Your task to perform on an android device: toggle location history Image 0: 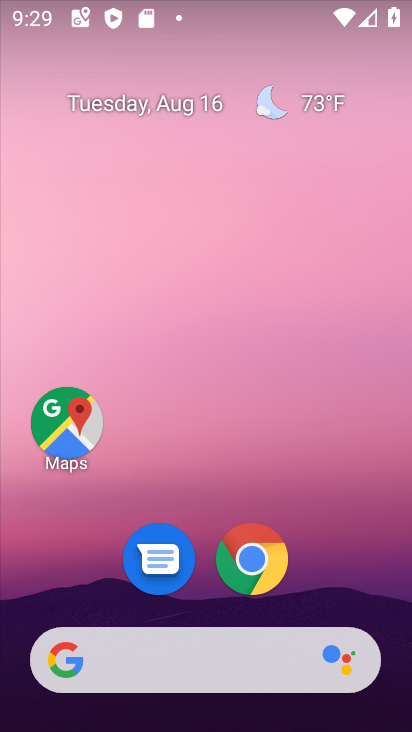
Step 0: drag from (348, 573) to (335, 9)
Your task to perform on an android device: toggle location history Image 1: 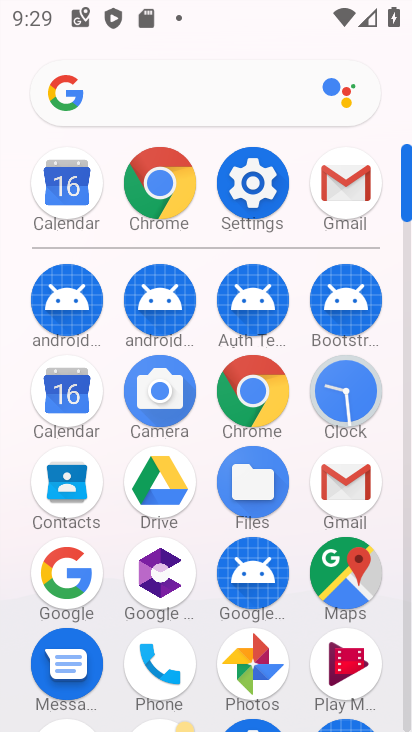
Step 1: click (340, 567)
Your task to perform on an android device: toggle location history Image 2: 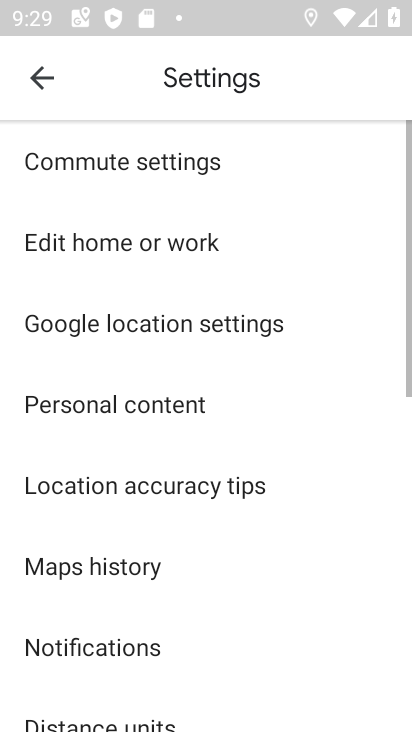
Step 2: click (39, 73)
Your task to perform on an android device: toggle location history Image 3: 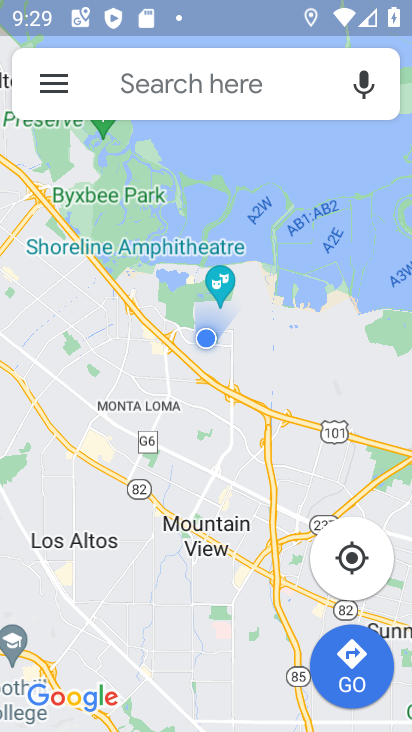
Step 3: click (59, 76)
Your task to perform on an android device: toggle location history Image 4: 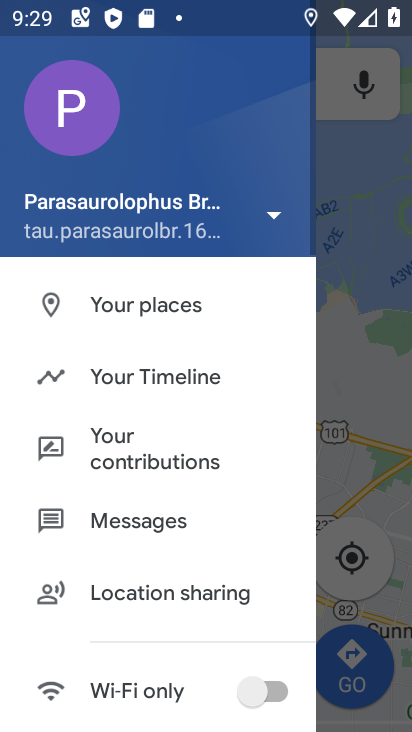
Step 4: click (172, 358)
Your task to perform on an android device: toggle location history Image 5: 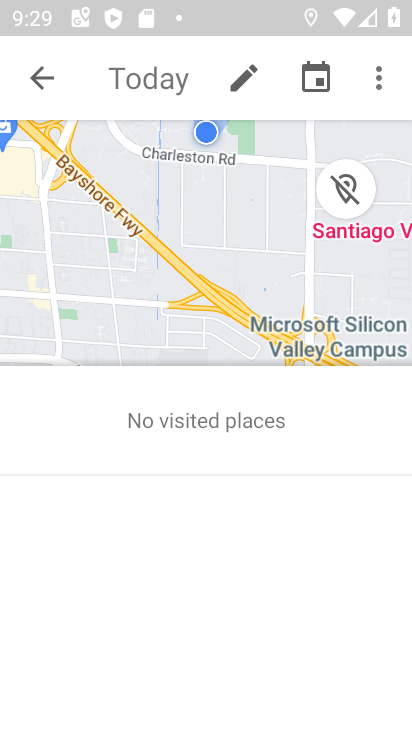
Step 5: click (368, 77)
Your task to perform on an android device: toggle location history Image 6: 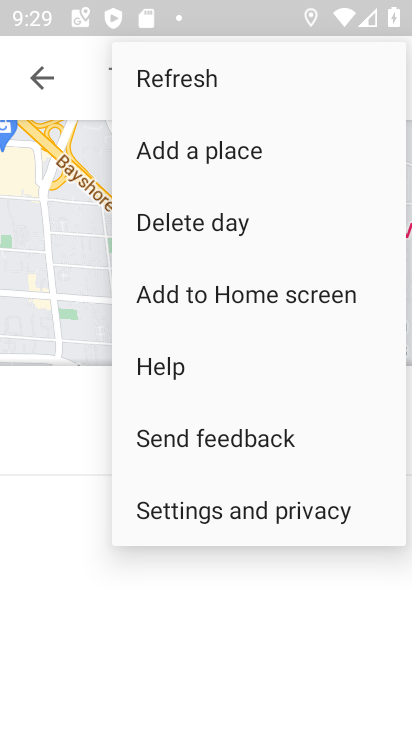
Step 6: click (240, 507)
Your task to perform on an android device: toggle location history Image 7: 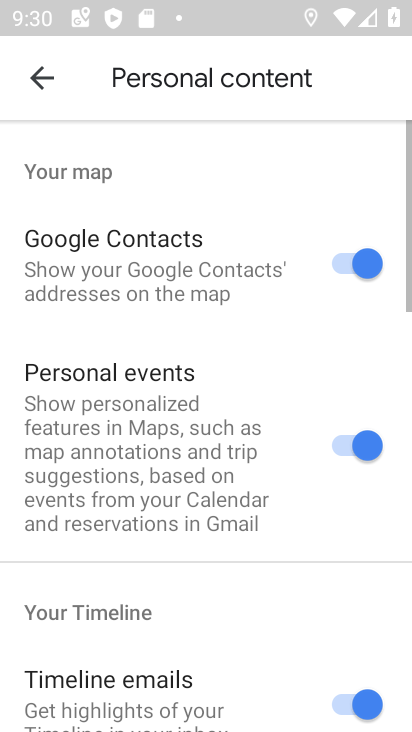
Step 7: drag from (274, 594) to (276, 76)
Your task to perform on an android device: toggle location history Image 8: 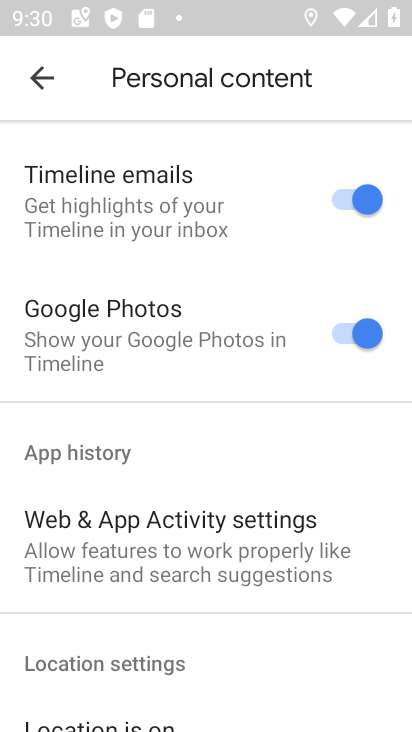
Step 8: drag from (183, 648) to (166, 199)
Your task to perform on an android device: toggle location history Image 9: 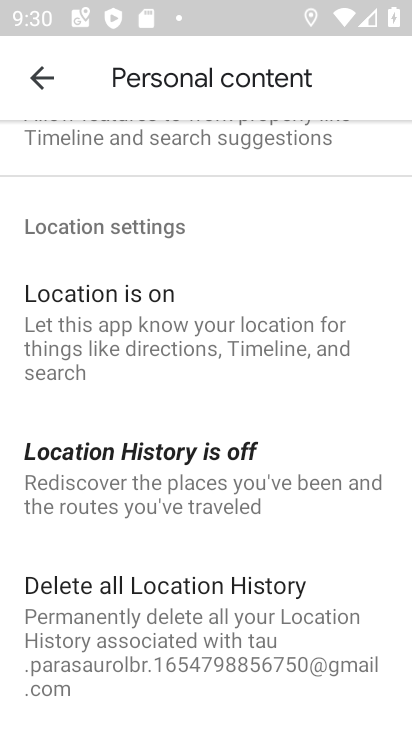
Step 9: click (187, 455)
Your task to perform on an android device: toggle location history Image 10: 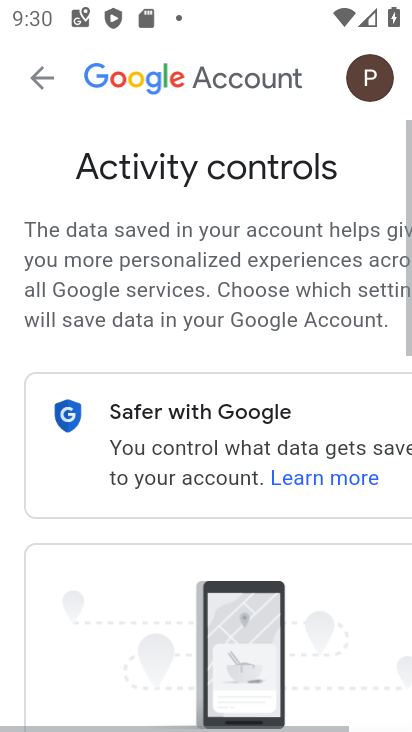
Step 10: drag from (308, 587) to (322, 128)
Your task to perform on an android device: toggle location history Image 11: 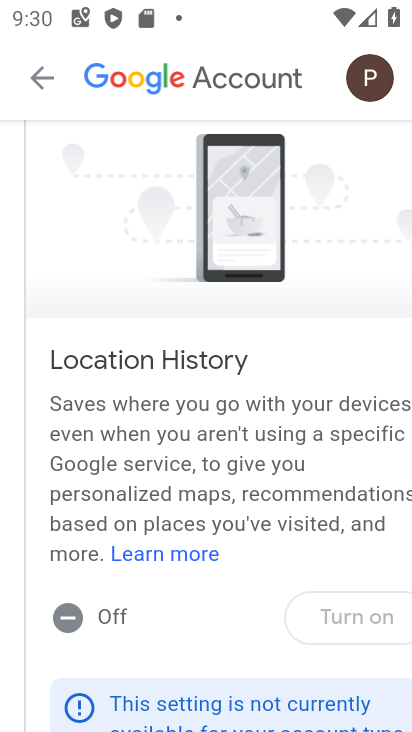
Step 11: click (355, 619)
Your task to perform on an android device: toggle location history Image 12: 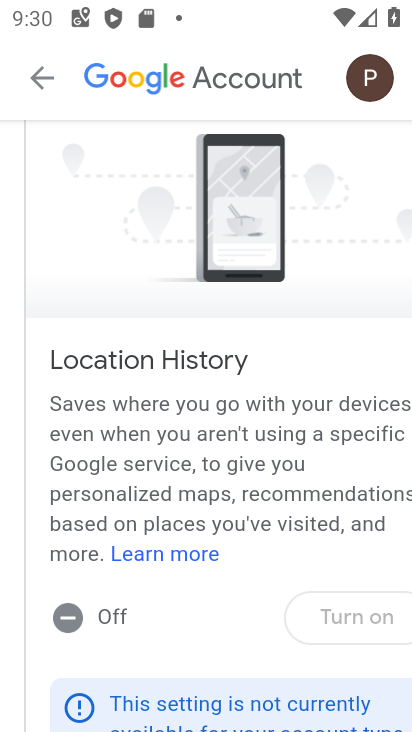
Step 12: click (384, 607)
Your task to perform on an android device: toggle location history Image 13: 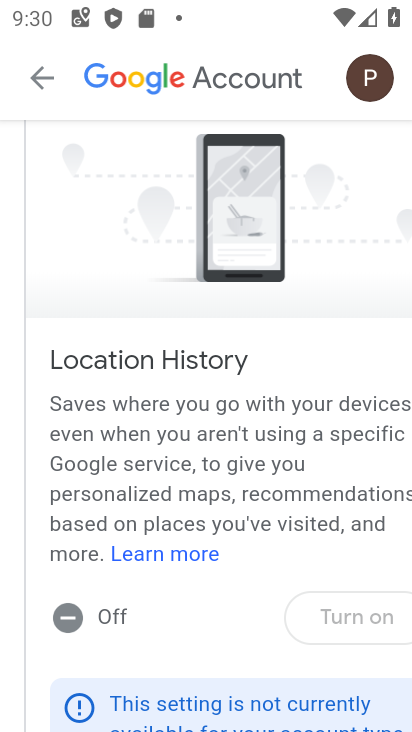
Step 13: task complete